Your task to perform on an android device: Open sound settings Image 0: 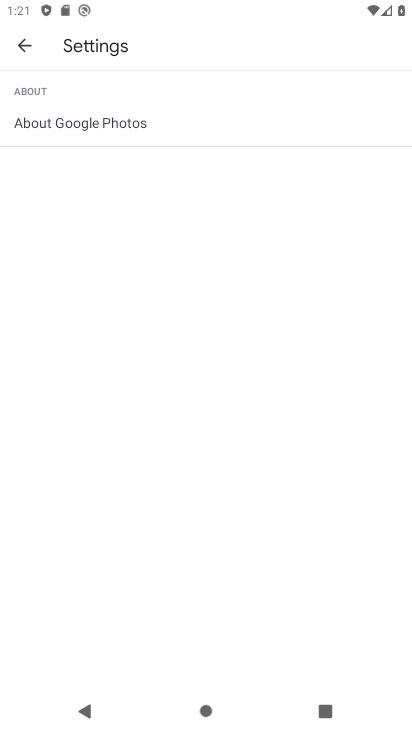
Step 0: press home button
Your task to perform on an android device: Open sound settings Image 1: 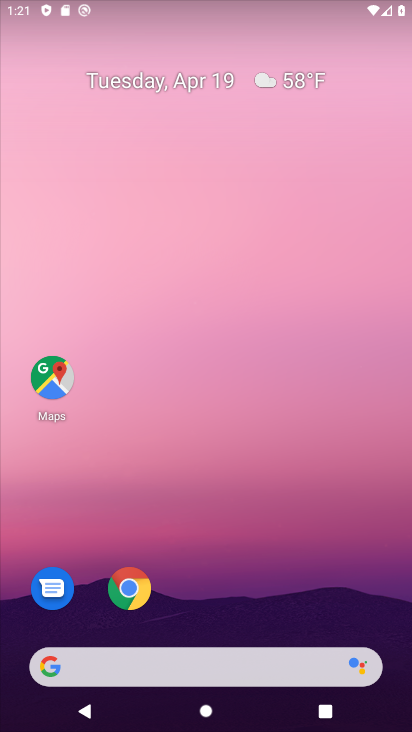
Step 1: drag from (280, 575) to (288, 86)
Your task to perform on an android device: Open sound settings Image 2: 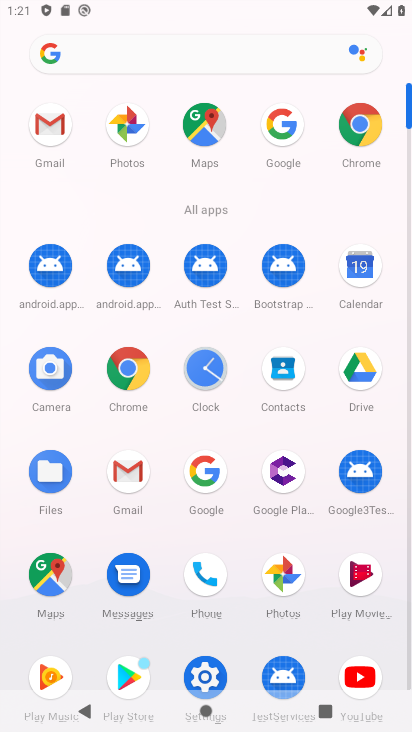
Step 2: click (212, 660)
Your task to perform on an android device: Open sound settings Image 3: 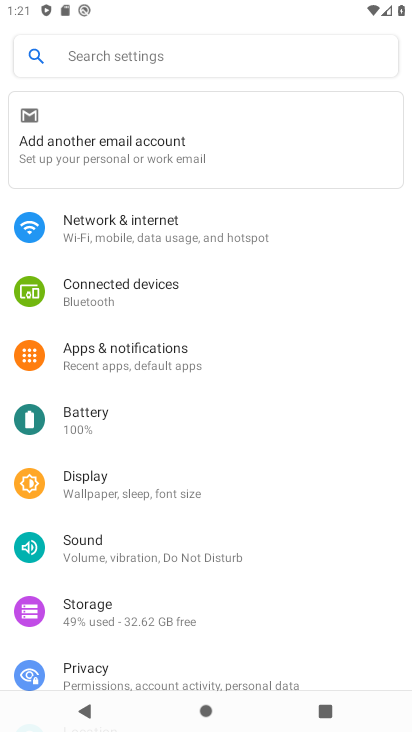
Step 3: click (180, 558)
Your task to perform on an android device: Open sound settings Image 4: 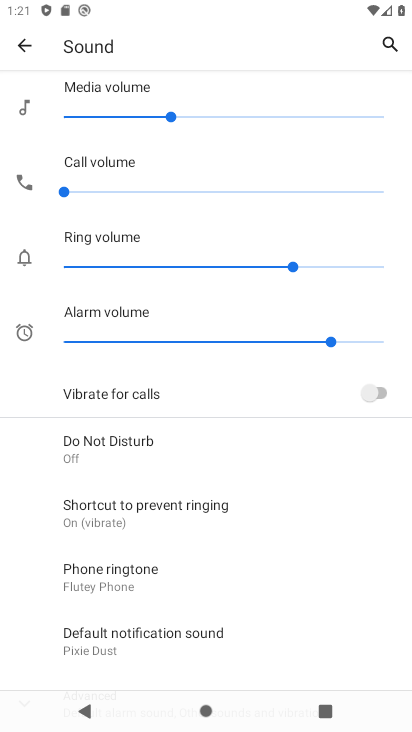
Step 4: task complete